Your task to perform on an android device: open app "Expedia: Hotels, Flights & Car" (install if not already installed) and go to login screen Image 0: 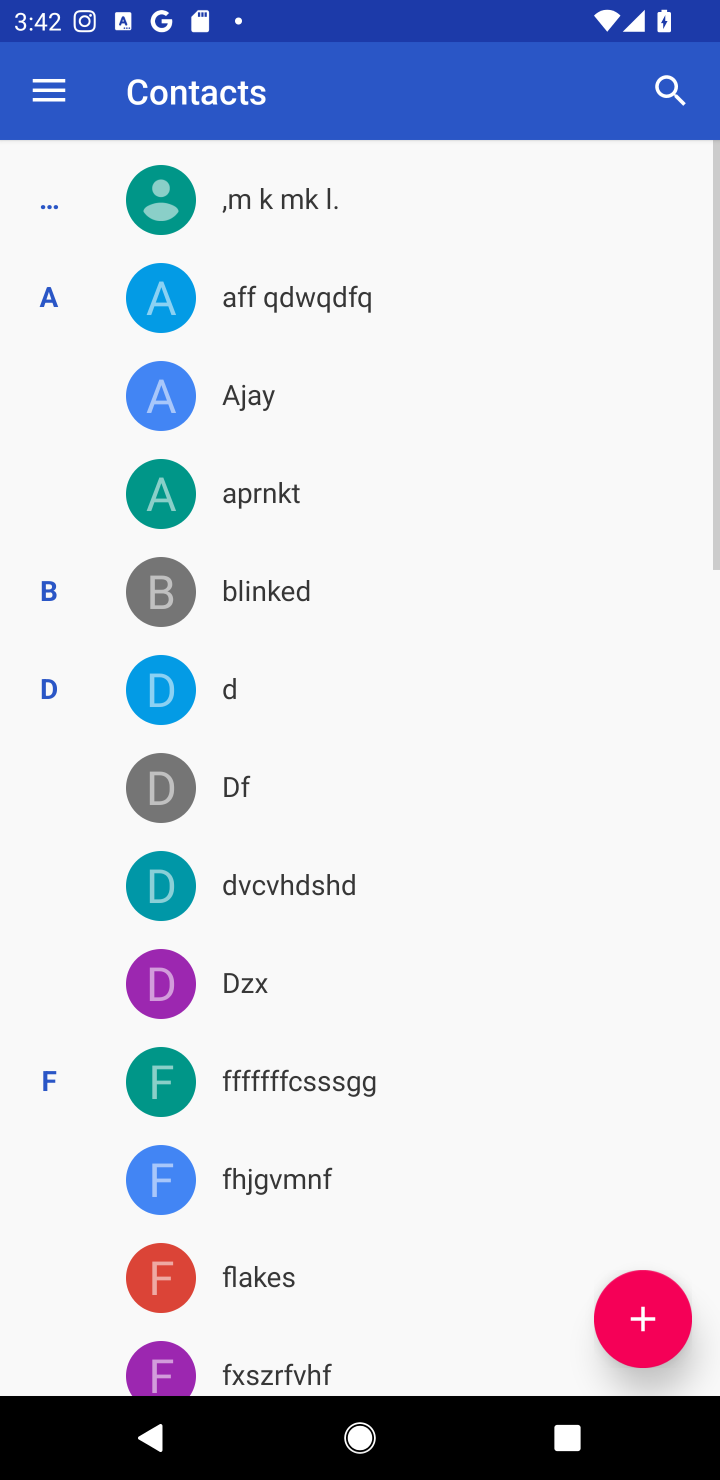
Step 0: press home button
Your task to perform on an android device: open app "Expedia: Hotels, Flights & Car" (install if not already installed) and go to login screen Image 1: 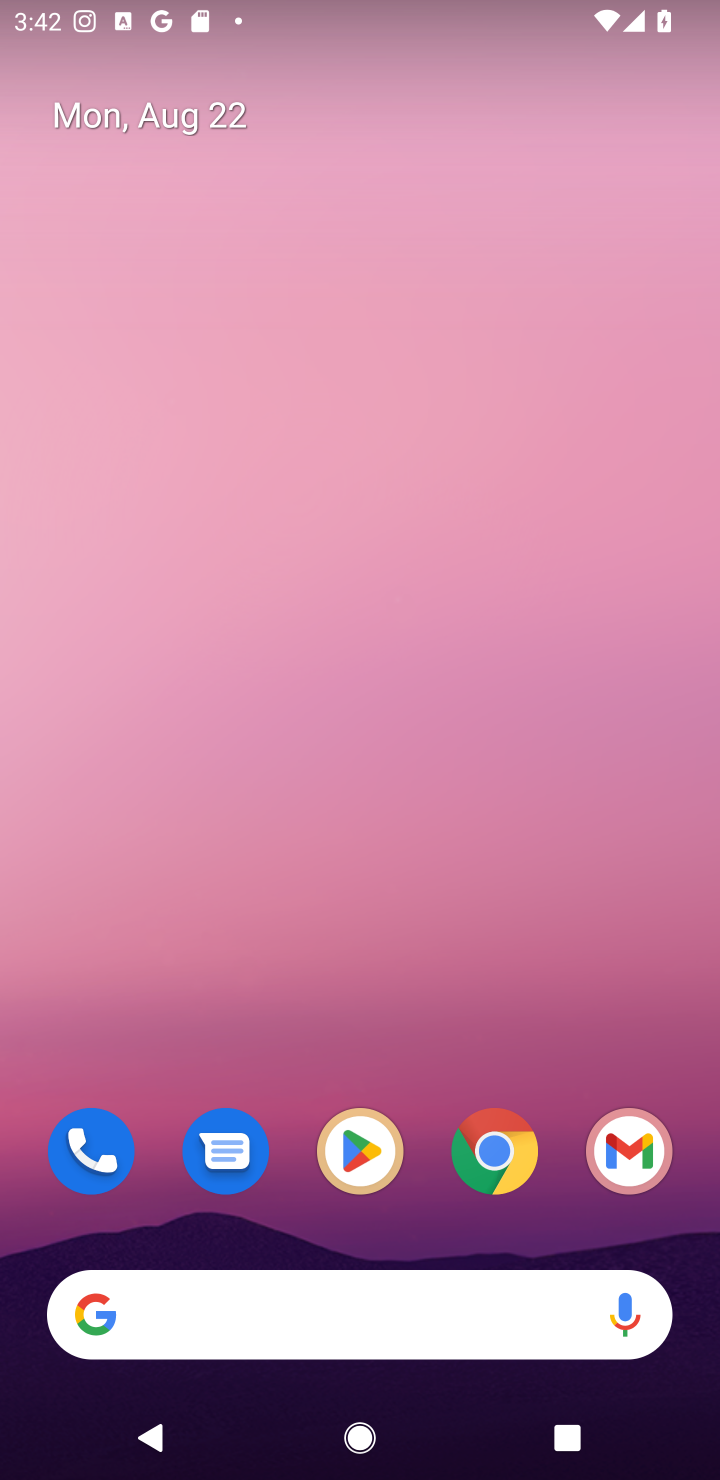
Step 1: click (364, 1147)
Your task to perform on an android device: open app "Expedia: Hotels, Flights & Car" (install if not already installed) and go to login screen Image 2: 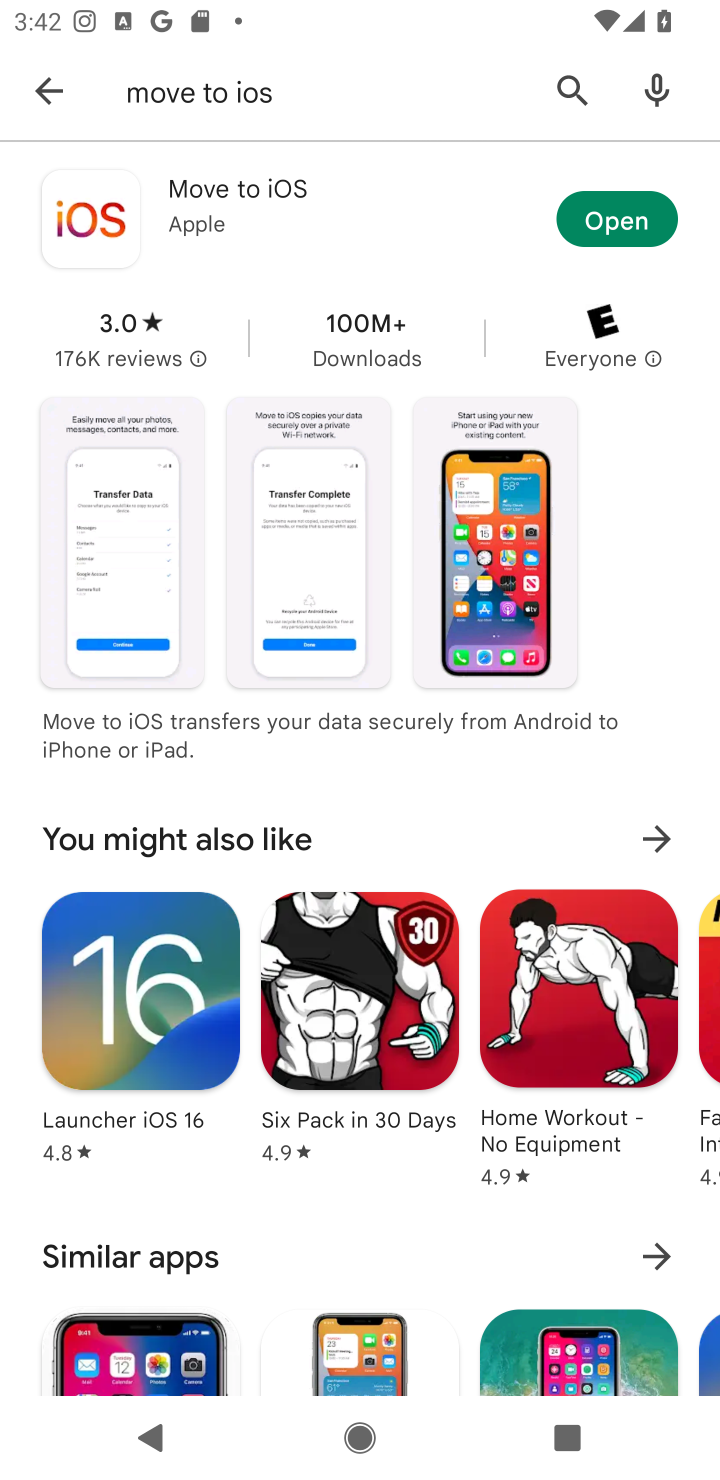
Step 2: click (578, 94)
Your task to perform on an android device: open app "Expedia: Hotels, Flights & Car" (install if not already installed) and go to login screen Image 3: 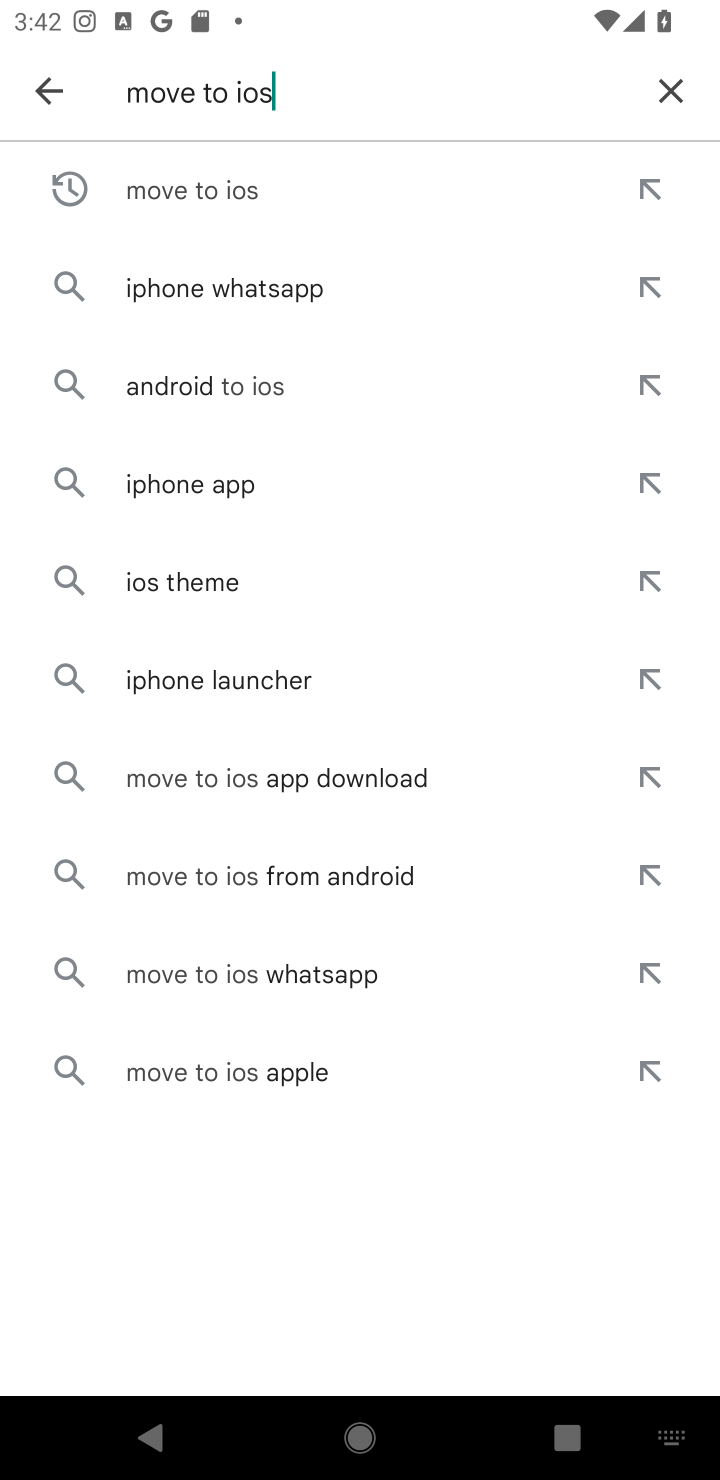
Step 3: click (658, 87)
Your task to perform on an android device: open app "Expedia: Hotels, Flights & Car" (install if not already installed) and go to login screen Image 4: 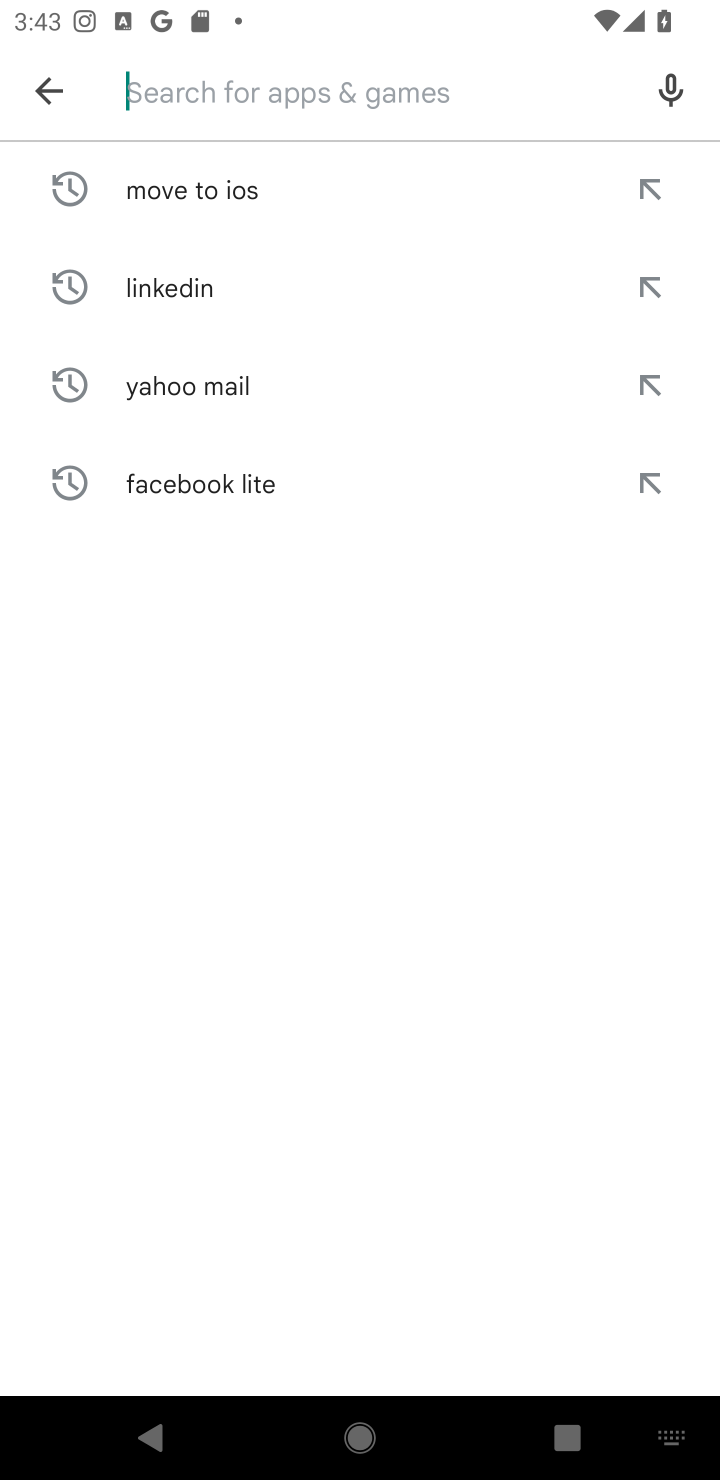
Step 4: type "Expedia: Hotels, Flights & Car"
Your task to perform on an android device: open app "Expedia: Hotels, Flights & Car" (install if not already installed) and go to login screen Image 5: 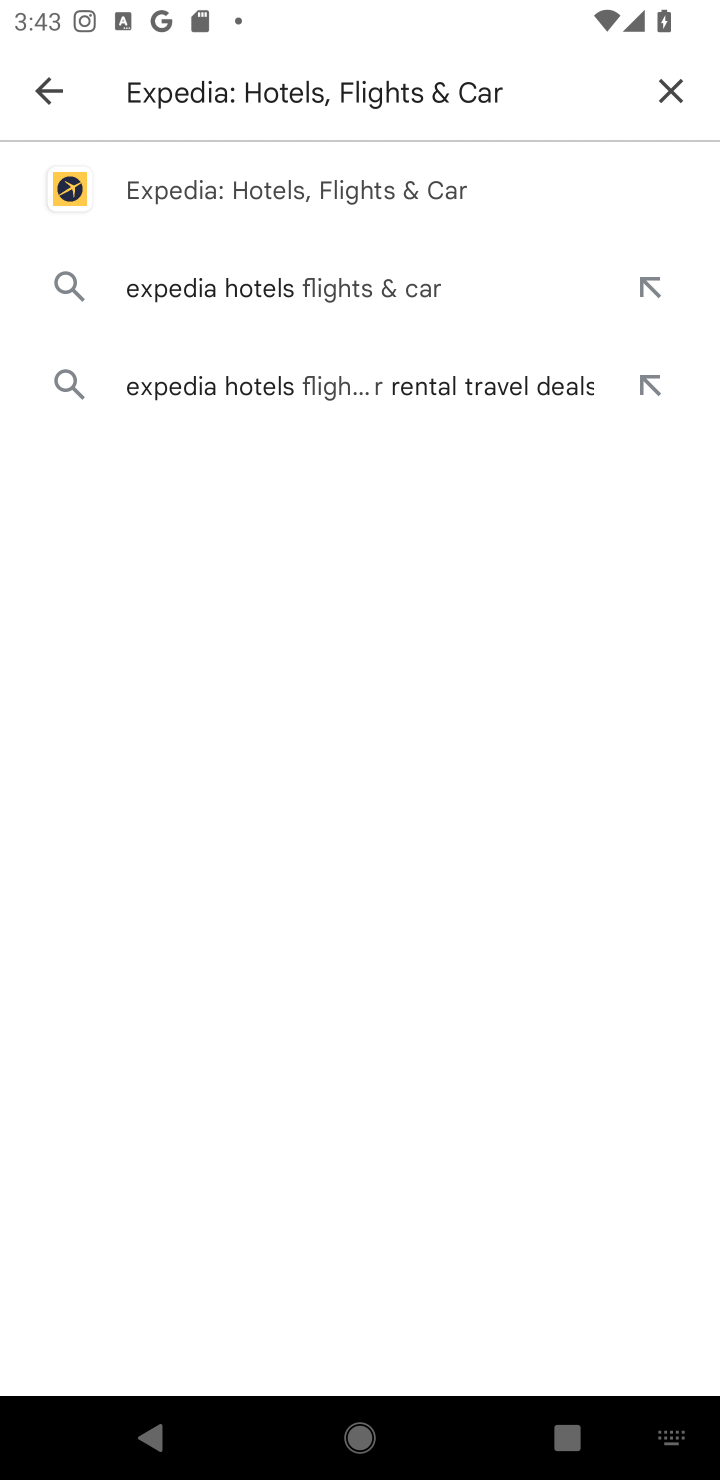
Step 5: click (259, 193)
Your task to perform on an android device: open app "Expedia: Hotels, Flights & Car" (install if not already installed) and go to login screen Image 6: 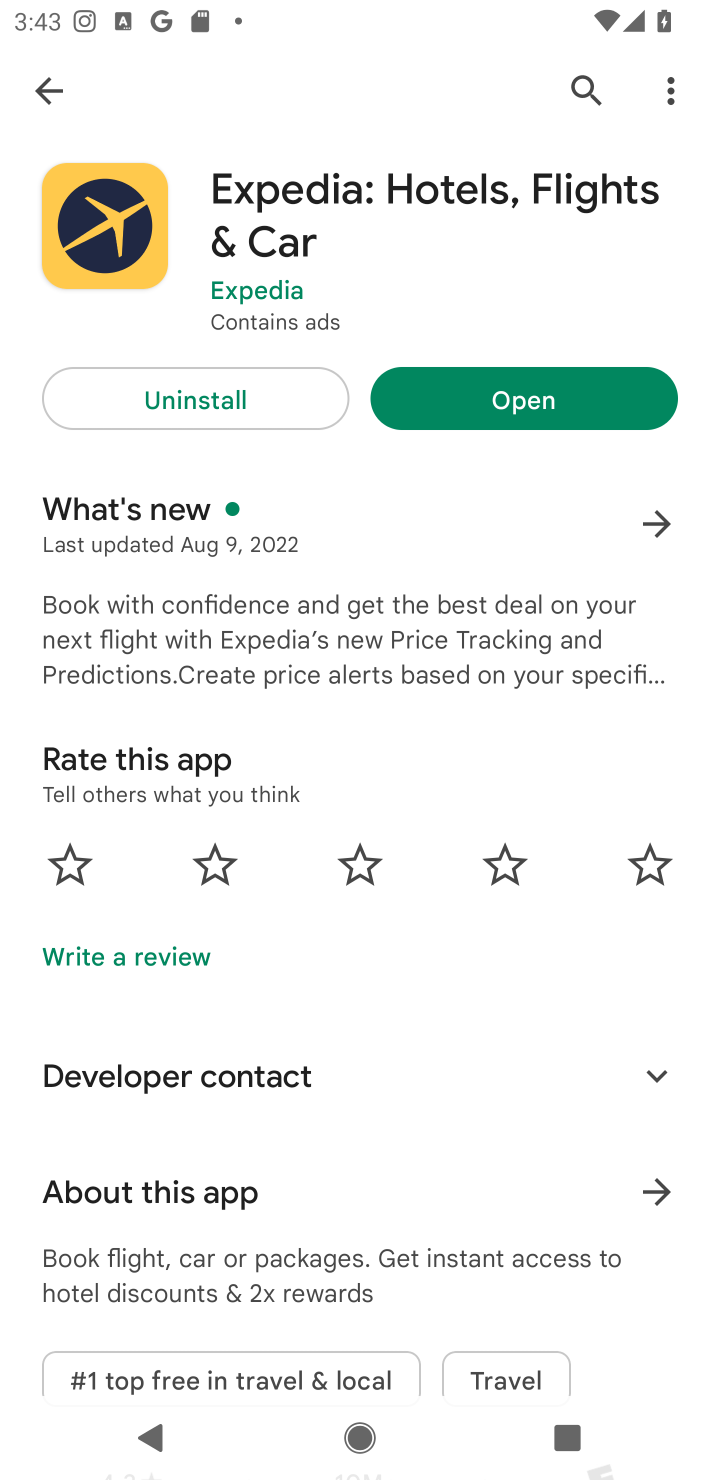
Step 6: click (551, 399)
Your task to perform on an android device: open app "Expedia: Hotels, Flights & Car" (install if not already installed) and go to login screen Image 7: 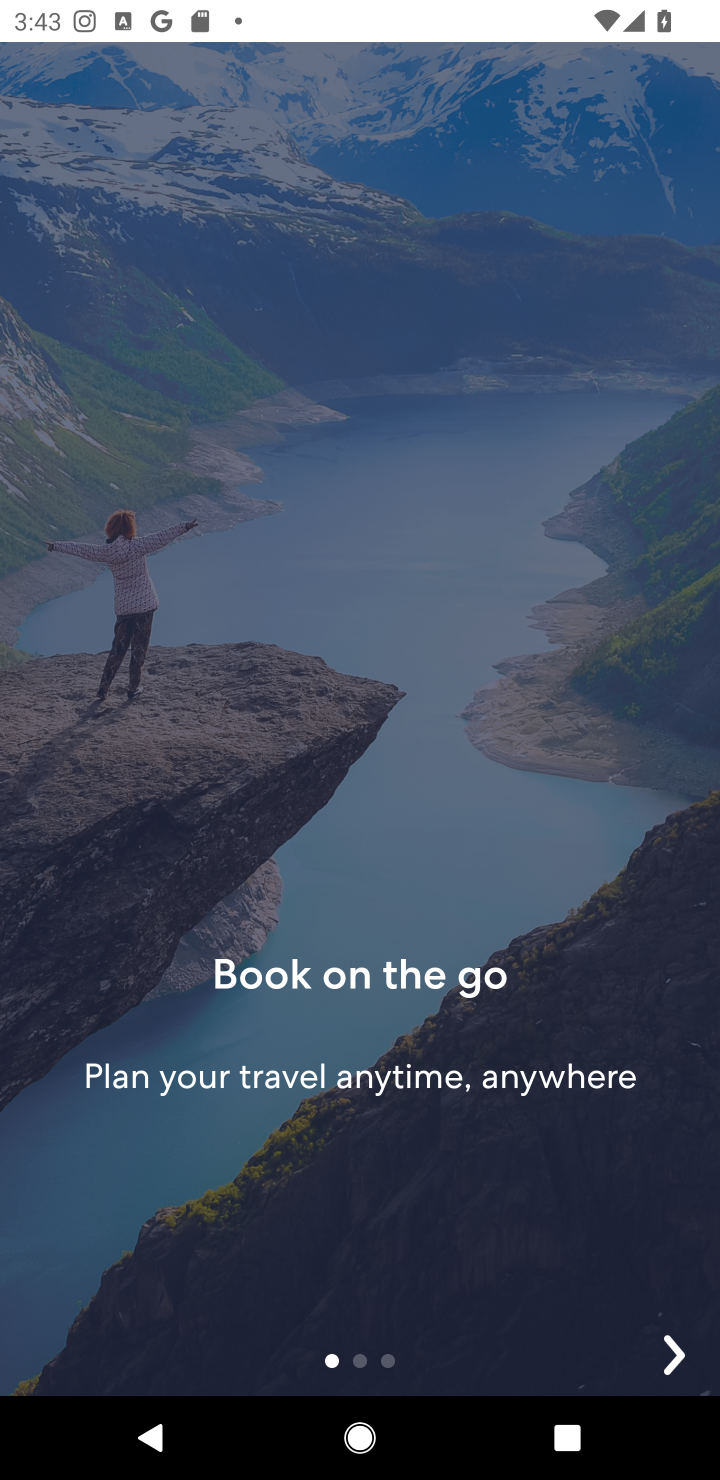
Step 7: click (679, 1348)
Your task to perform on an android device: open app "Expedia: Hotels, Flights & Car" (install if not already installed) and go to login screen Image 8: 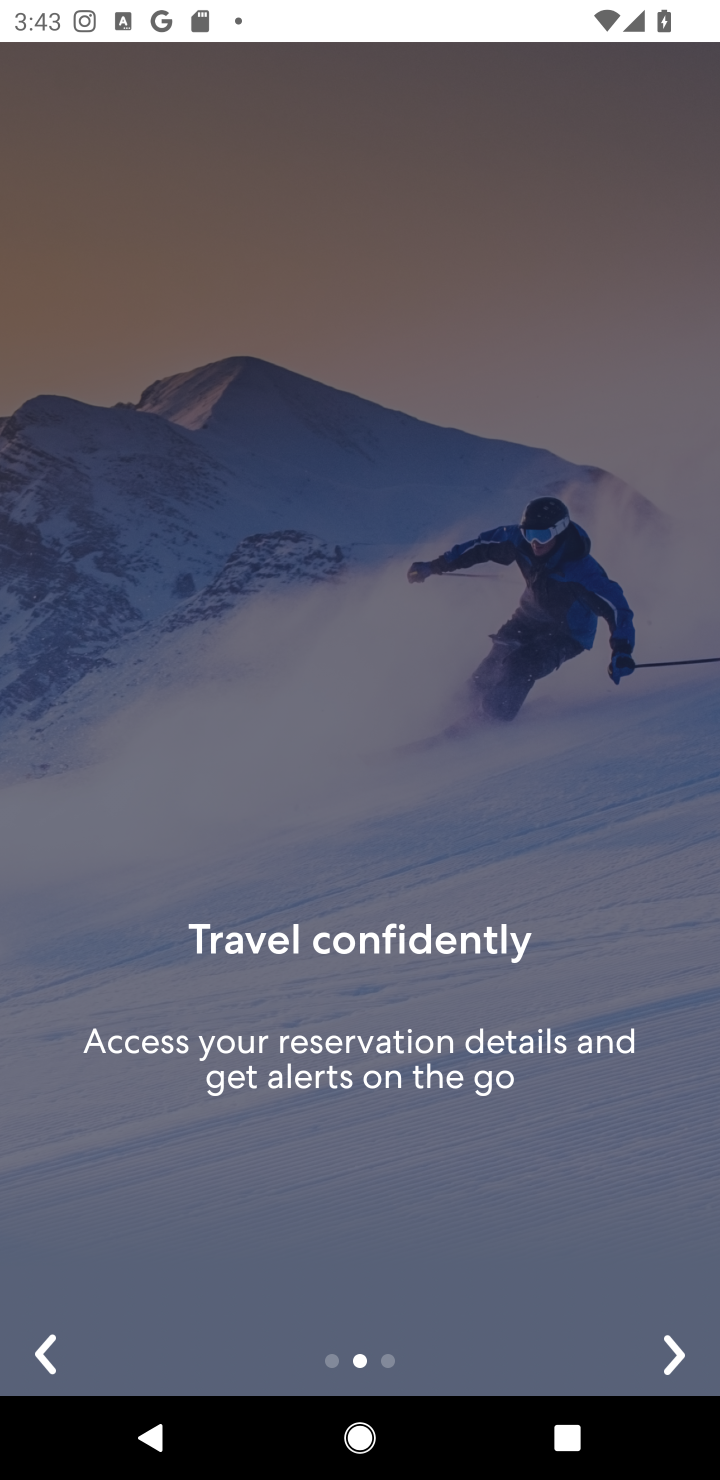
Step 8: click (662, 1348)
Your task to perform on an android device: open app "Expedia: Hotels, Flights & Car" (install if not already installed) and go to login screen Image 9: 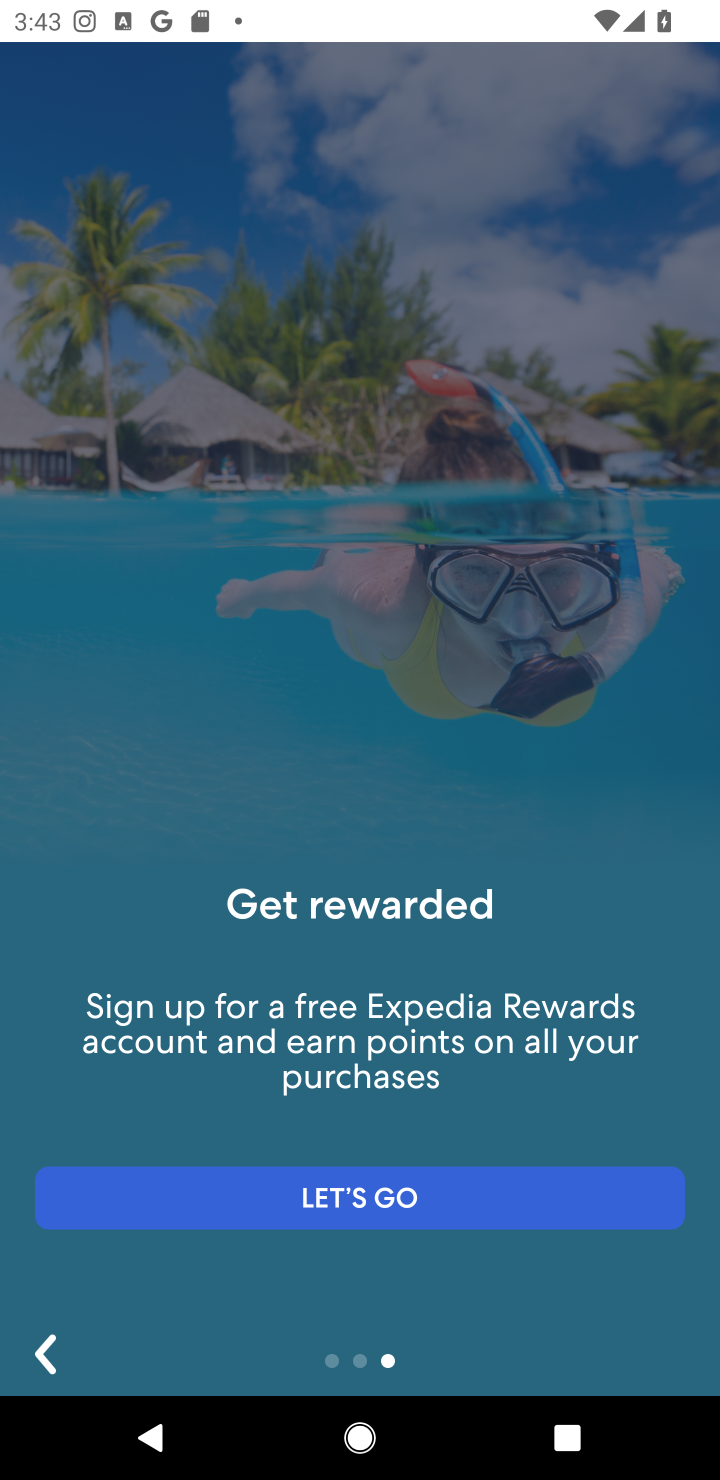
Step 9: click (662, 1348)
Your task to perform on an android device: open app "Expedia: Hotels, Flights & Car" (install if not already installed) and go to login screen Image 10: 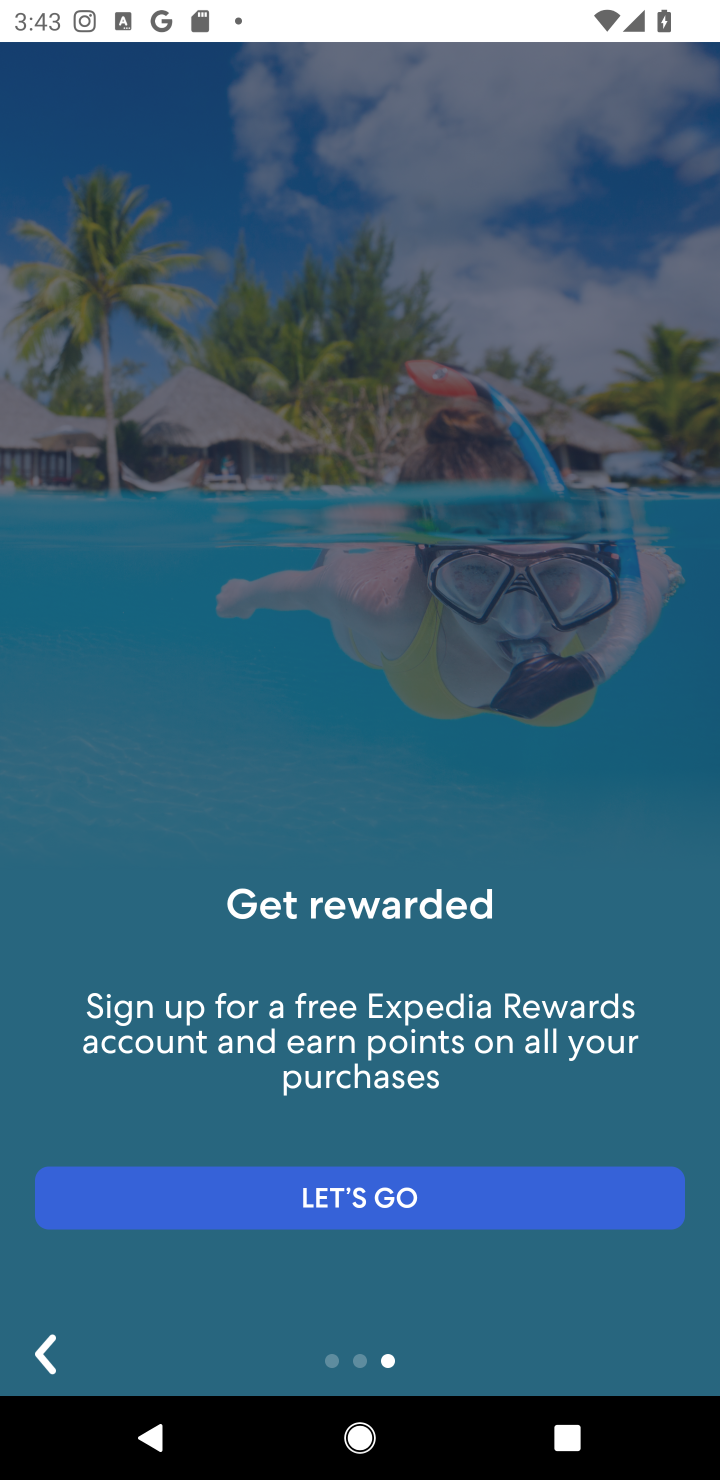
Step 10: click (390, 1195)
Your task to perform on an android device: open app "Expedia: Hotels, Flights & Car" (install if not already installed) and go to login screen Image 11: 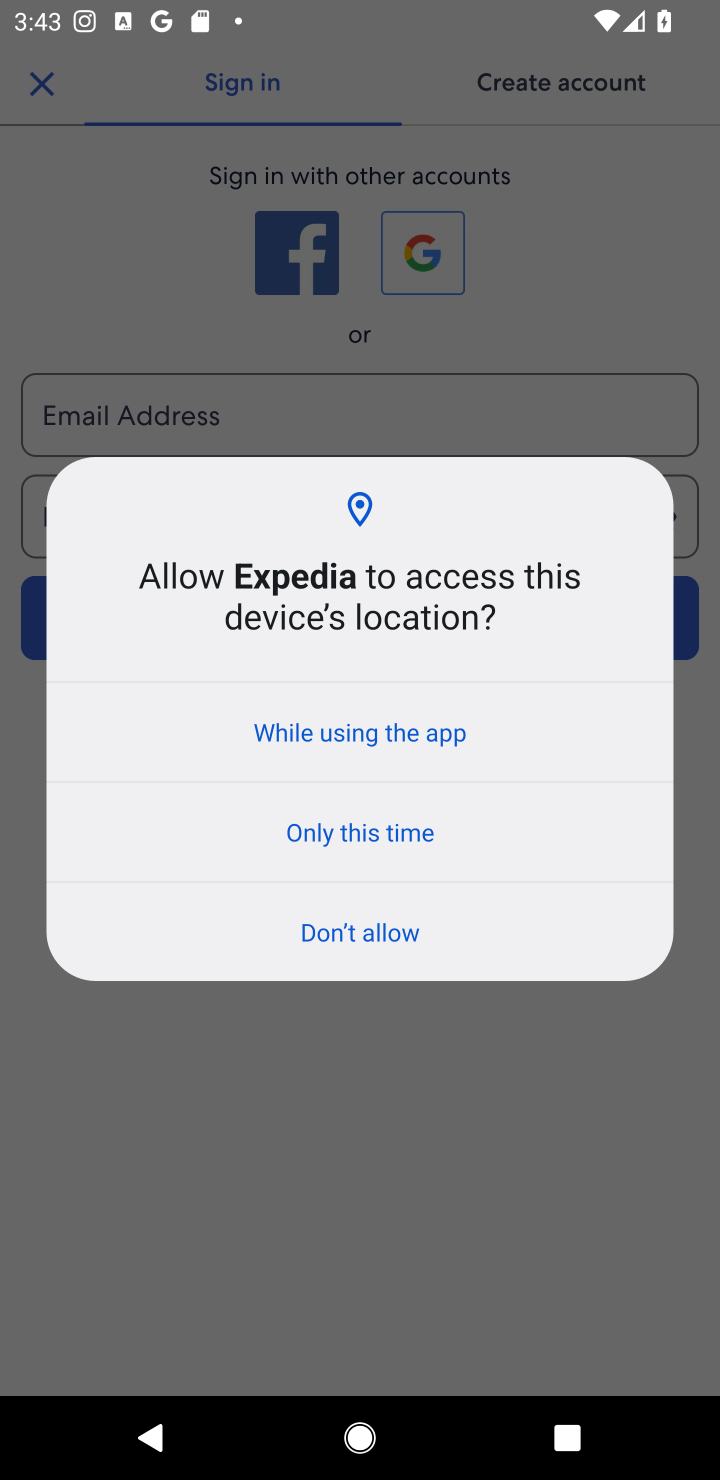
Step 11: click (450, 826)
Your task to perform on an android device: open app "Expedia: Hotels, Flights & Car" (install if not already installed) and go to login screen Image 12: 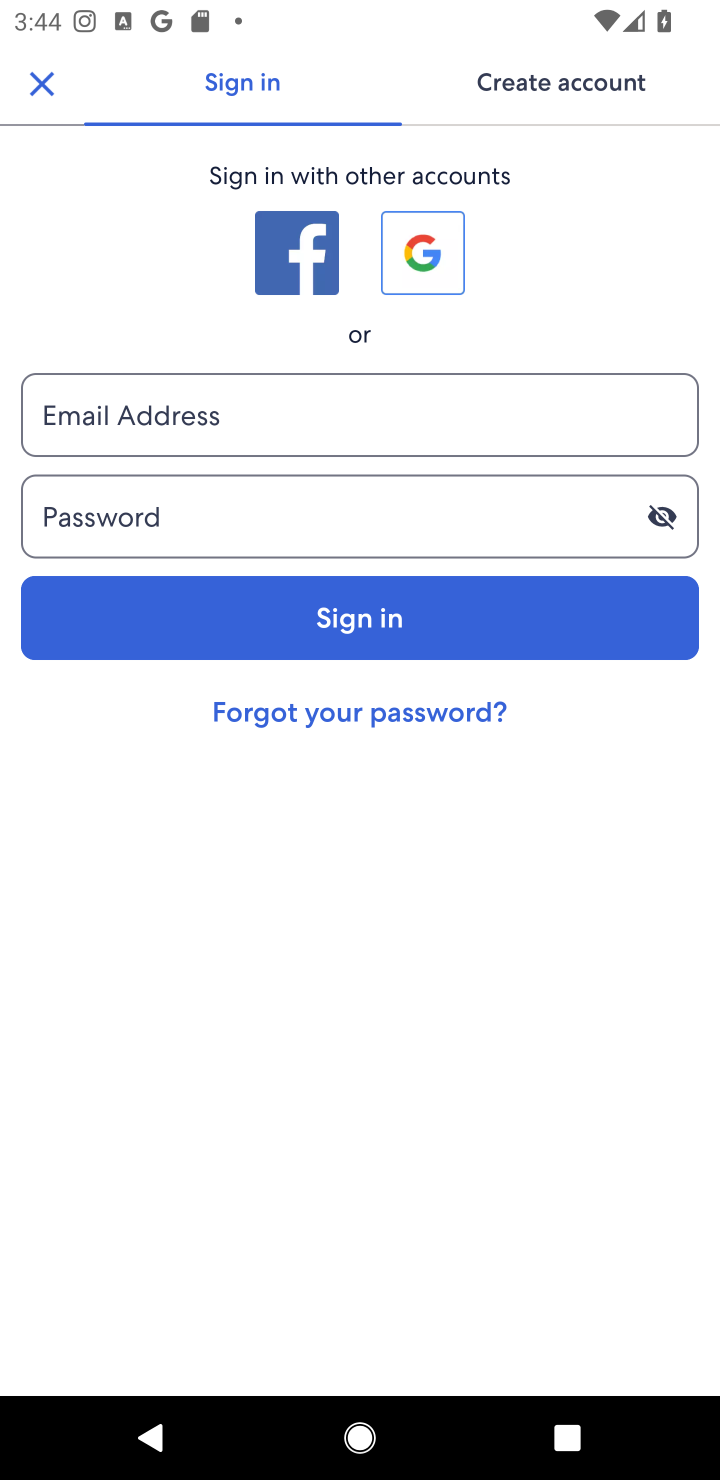
Step 12: task complete